Your task to perform on an android device: Open the calendar app, open the side menu, and click the "Day" option Image 0: 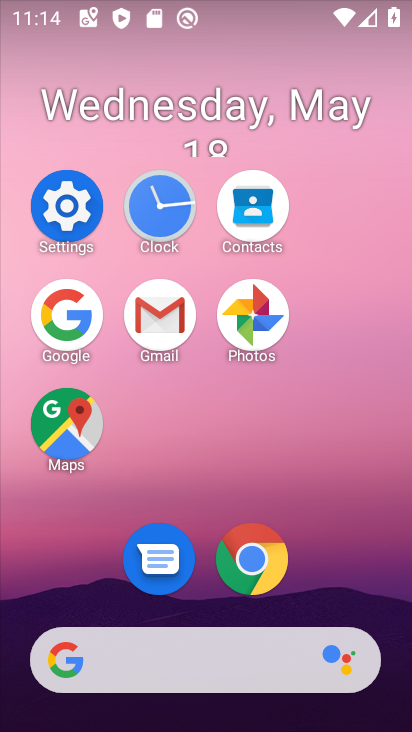
Step 0: drag from (317, 400) to (335, 45)
Your task to perform on an android device: Open the calendar app, open the side menu, and click the "Day" option Image 1: 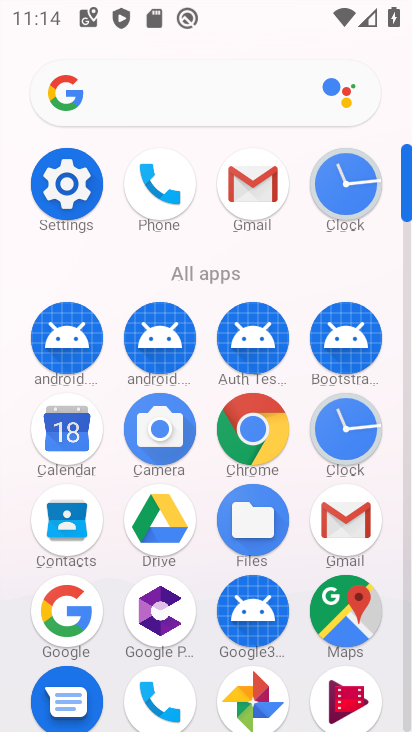
Step 1: drag from (68, 437) to (283, 251)
Your task to perform on an android device: Open the calendar app, open the side menu, and click the "Day" option Image 2: 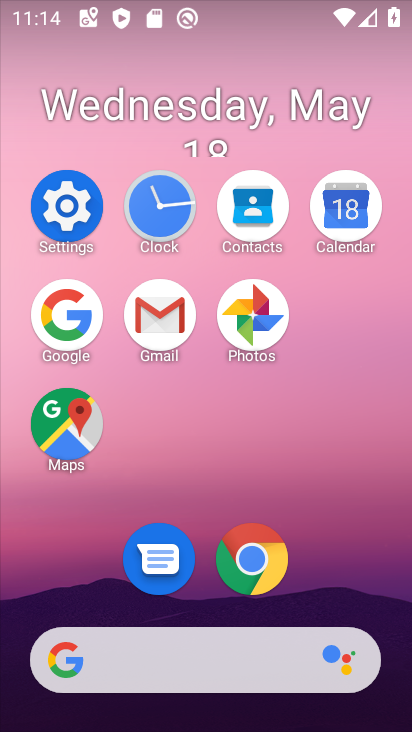
Step 2: click (335, 213)
Your task to perform on an android device: Open the calendar app, open the side menu, and click the "Day" option Image 3: 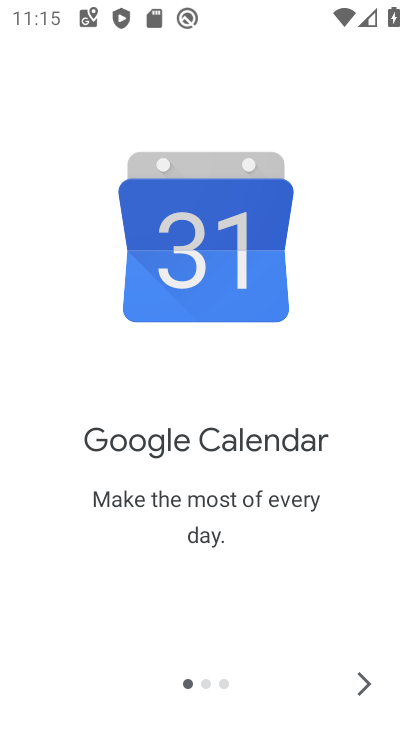
Step 3: click (373, 690)
Your task to perform on an android device: Open the calendar app, open the side menu, and click the "Day" option Image 4: 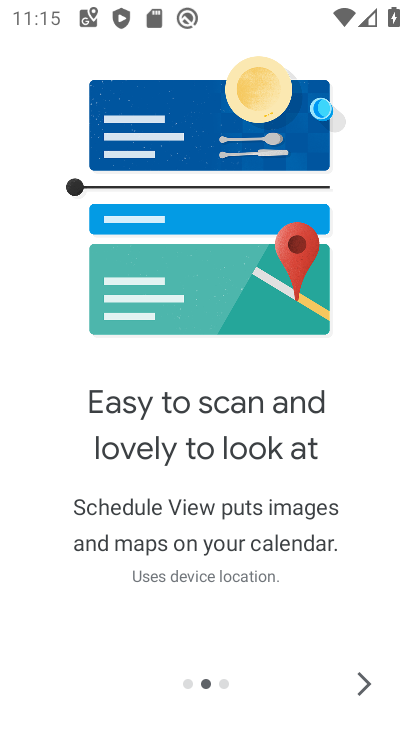
Step 4: click (373, 690)
Your task to perform on an android device: Open the calendar app, open the side menu, and click the "Day" option Image 5: 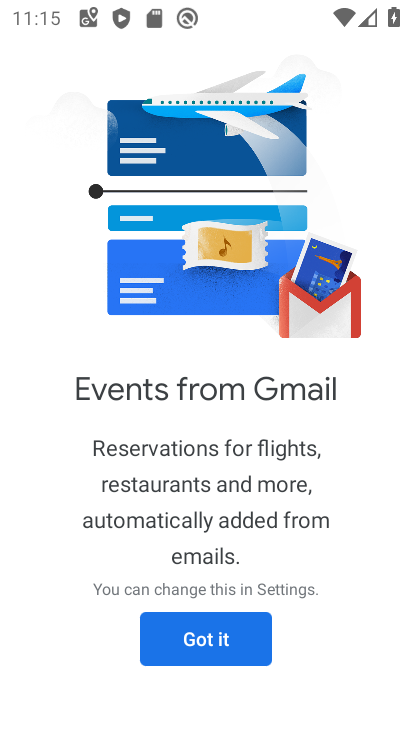
Step 5: click (373, 690)
Your task to perform on an android device: Open the calendar app, open the side menu, and click the "Day" option Image 6: 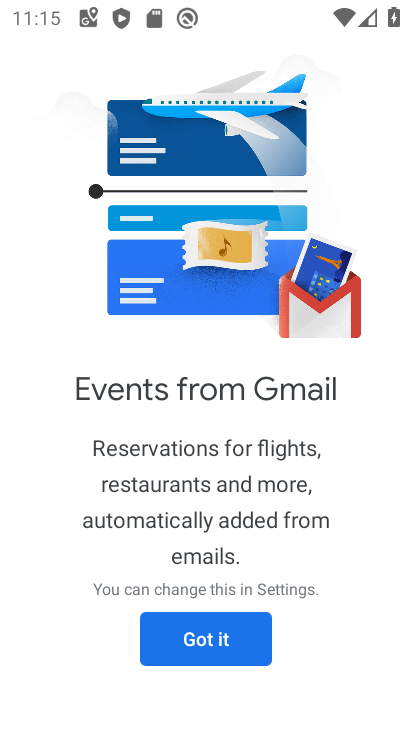
Step 6: click (297, 649)
Your task to perform on an android device: Open the calendar app, open the side menu, and click the "Day" option Image 7: 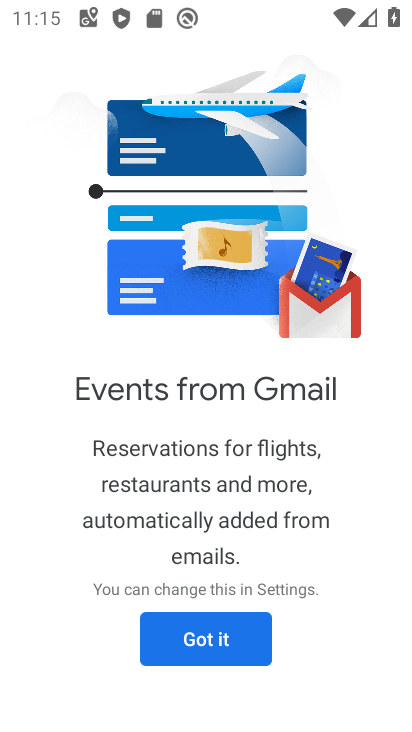
Step 7: click (228, 637)
Your task to perform on an android device: Open the calendar app, open the side menu, and click the "Day" option Image 8: 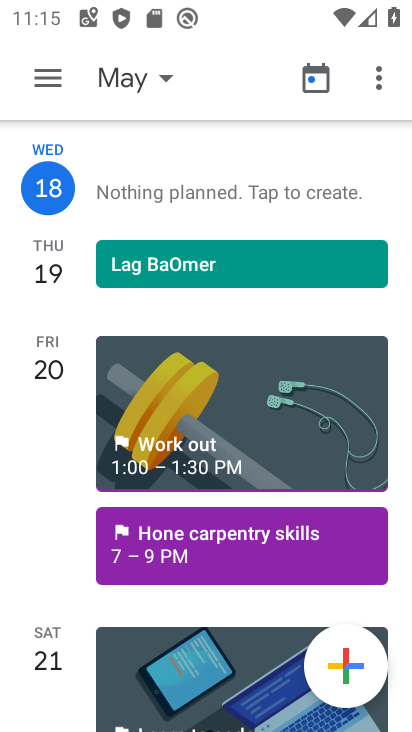
Step 8: click (63, 71)
Your task to perform on an android device: Open the calendar app, open the side menu, and click the "Day" option Image 9: 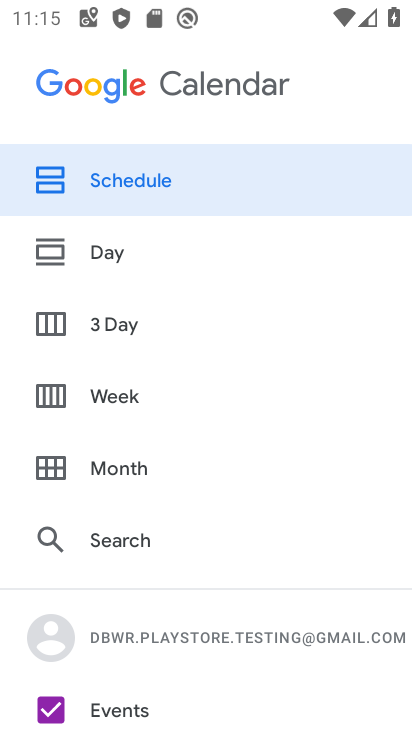
Step 9: click (160, 262)
Your task to perform on an android device: Open the calendar app, open the side menu, and click the "Day" option Image 10: 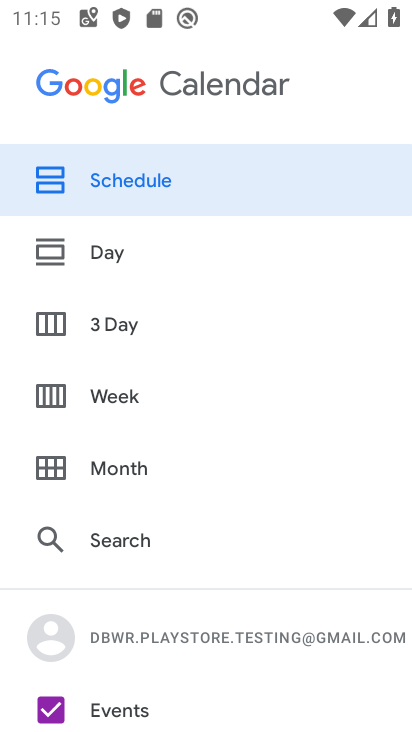
Step 10: click (102, 248)
Your task to perform on an android device: Open the calendar app, open the side menu, and click the "Day" option Image 11: 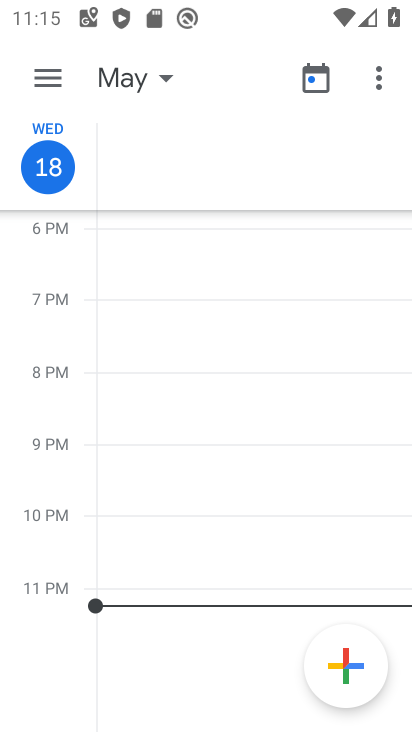
Step 11: task complete